Your task to perform on an android device: install app "Etsy: Buy & Sell Unique Items" Image 0: 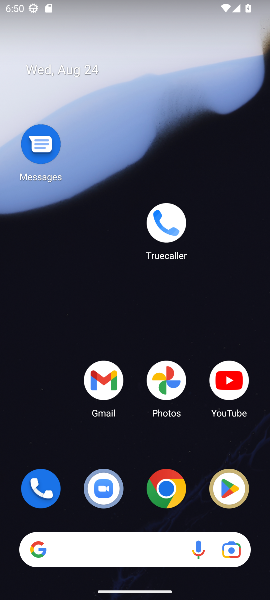
Step 0: drag from (137, 189) to (138, 78)
Your task to perform on an android device: install app "Etsy: Buy & Sell Unique Items" Image 1: 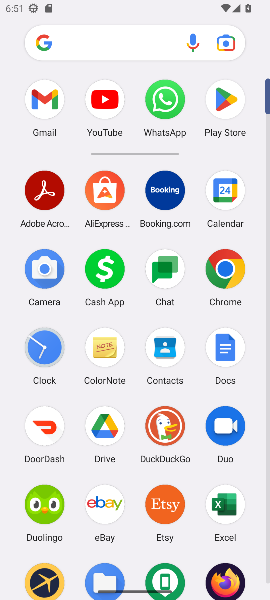
Step 1: click (224, 129)
Your task to perform on an android device: install app "Etsy: Buy & Sell Unique Items" Image 2: 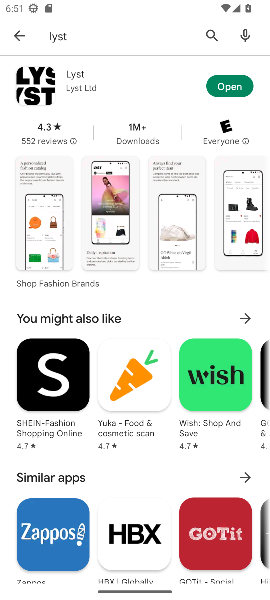
Step 2: click (211, 32)
Your task to perform on an android device: install app "Etsy: Buy & Sell Unique Items" Image 3: 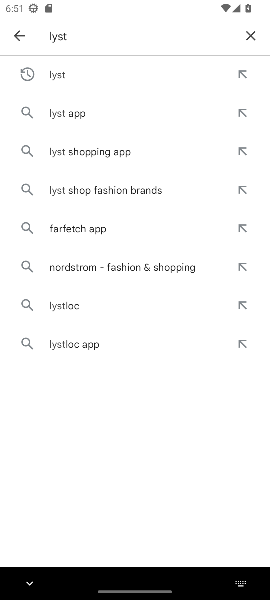
Step 3: click (251, 41)
Your task to perform on an android device: install app "Etsy: Buy & Sell Unique Items" Image 4: 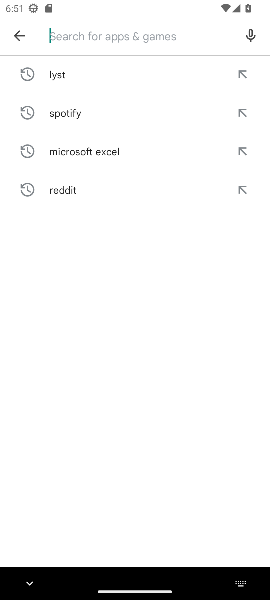
Step 4: type "etsy"
Your task to perform on an android device: install app "Etsy: Buy & Sell Unique Items" Image 5: 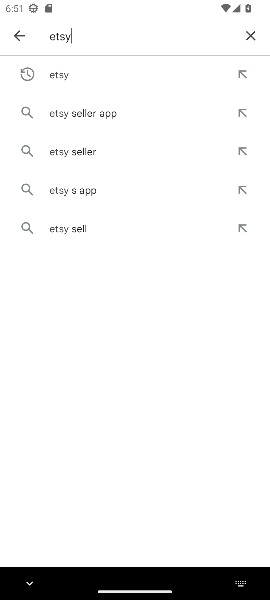
Step 5: click (134, 71)
Your task to perform on an android device: install app "Etsy: Buy & Sell Unique Items" Image 6: 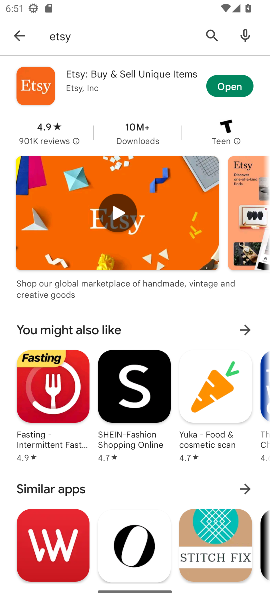
Step 6: click (231, 92)
Your task to perform on an android device: install app "Etsy: Buy & Sell Unique Items" Image 7: 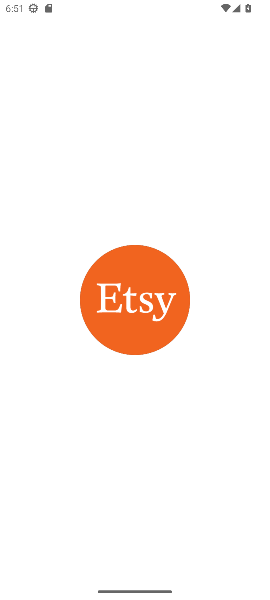
Step 7: task complete